Your task to perform on an android device: turn notification dots on Image 0: 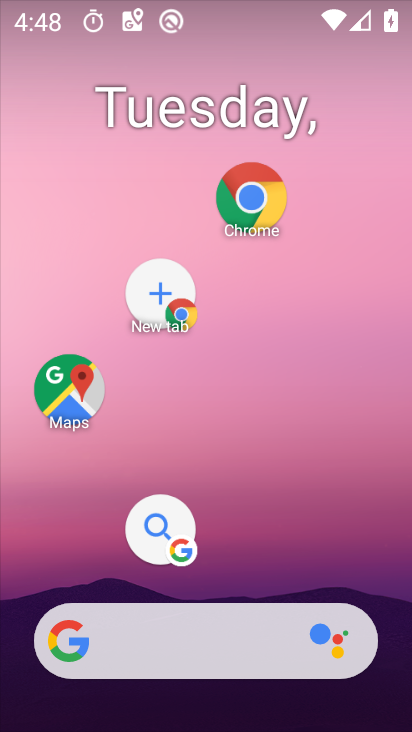
Step 0: drag from (193, 542) to (314, 290)
Your task to perform on an android device: turn notification dots on Image 1: 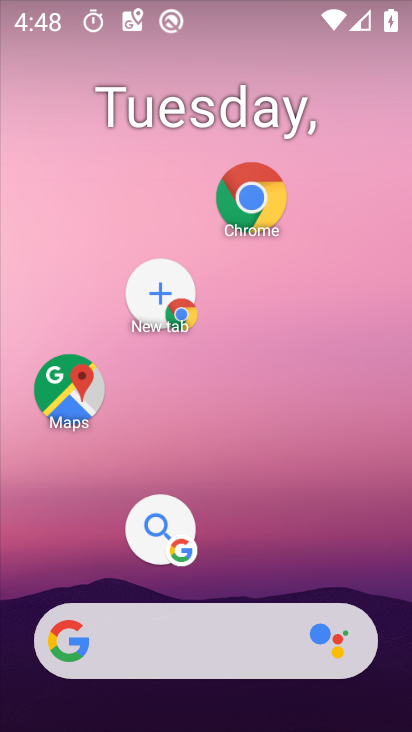
Step 1: drag from (182, 587) to (323, 143)
Your task to perform on an android device: turn notification dots on Image 2: 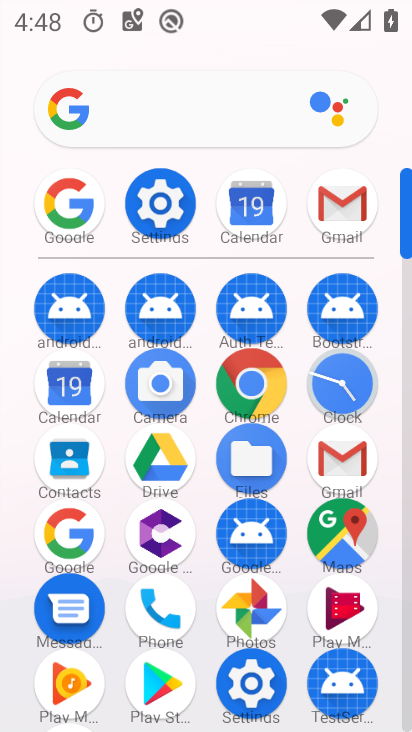
Step 2: click (166, 201)
Your task to perform on an android device: turn notification dots on Image 3: 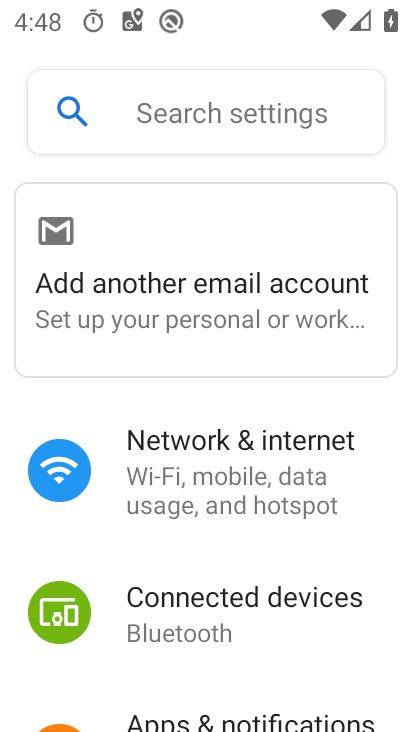
Step 3: click (219, 727)
Your task to perform on an android device: turn notification dots on Image 4: 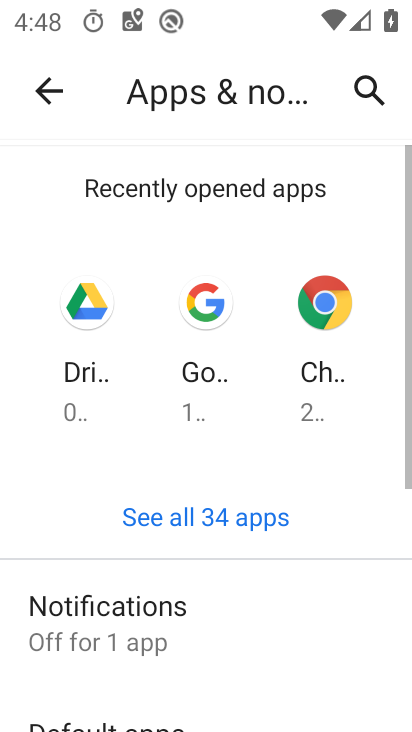
Step 4: click (119, 633)
Your task to perform on an android device: turn notification dots on Image 5: 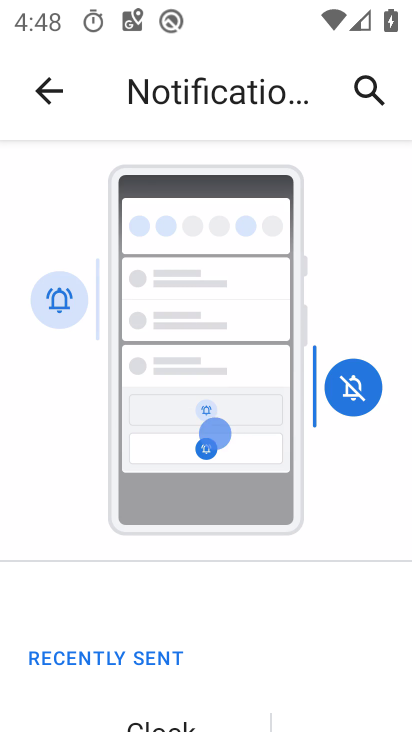
Step 5: drag from (305, 653) to (411, 373)
Your task to perform on an android device: turn notification dots on Image 6: 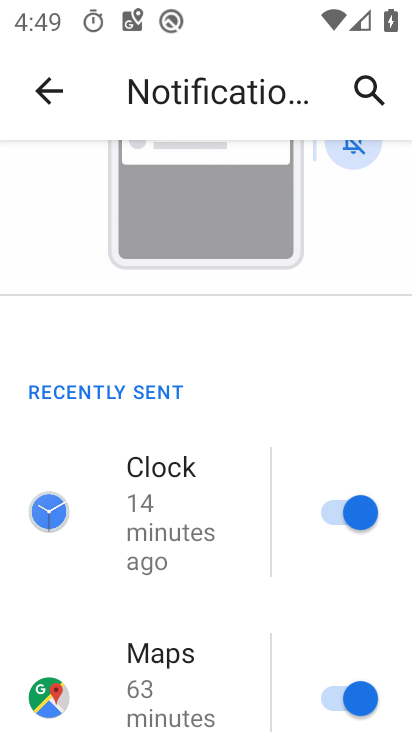
Step 6: drag from (224, 721) to (288, 569)
Your task to perform on an android device: turn notification dots on Image 7: 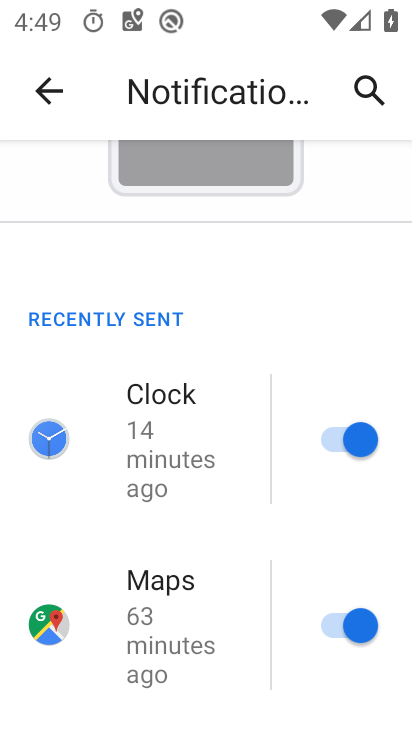
Step 7: drag from (187, 693) to (225, 467)
Your task to perform on an android device: turn notification dots on Image 8: 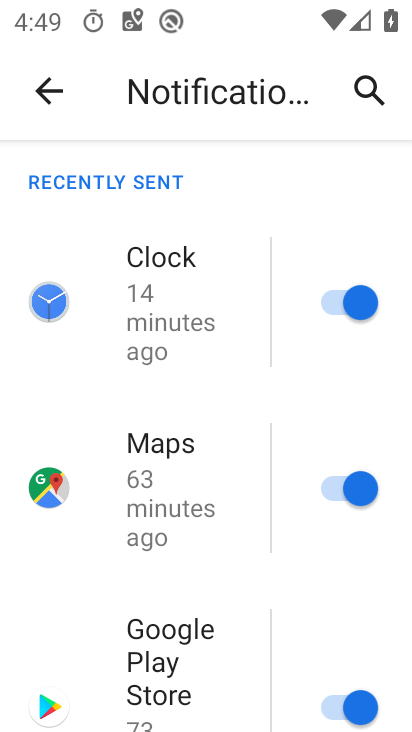
Step 8: drag from (212, 687) to (280, 336)
Your task to perform on an android device: turn notification dots on Image 9: 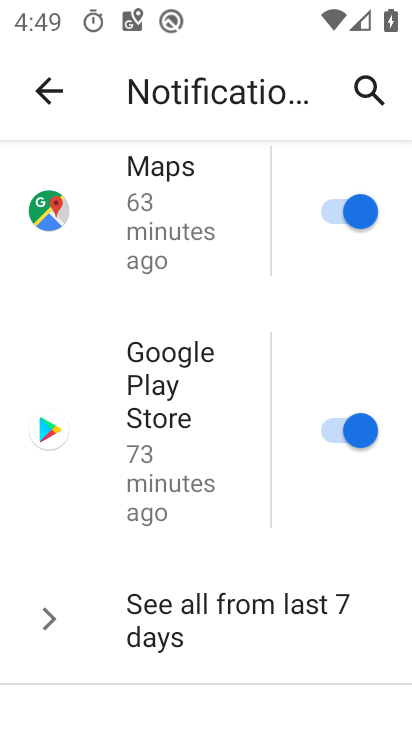
Step 9: drag from (202, 692) to (283, 433)
Your task to perform on an android device: turn notification dots on Image 10: 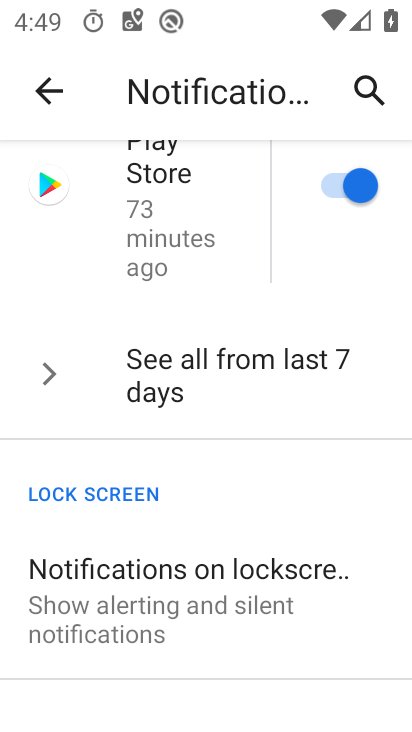
Step 10: drag from (135, 667) to (183, 538)
Your task to perform on an android device: turn notification dots on Image 11: 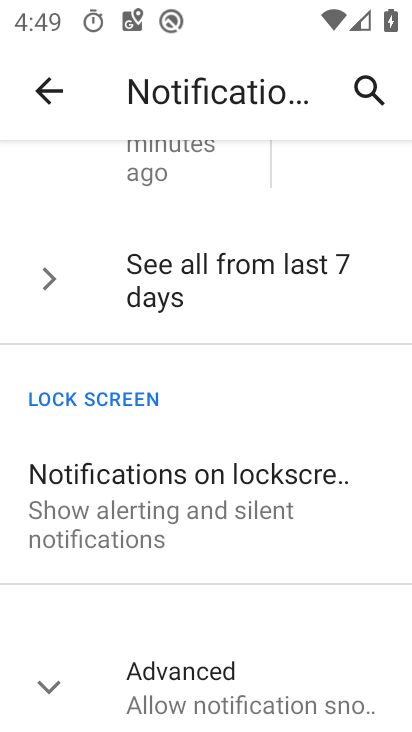
Step 11: click (170, 691)
Your task to perform on an android device: turn notification dots on Image 12: 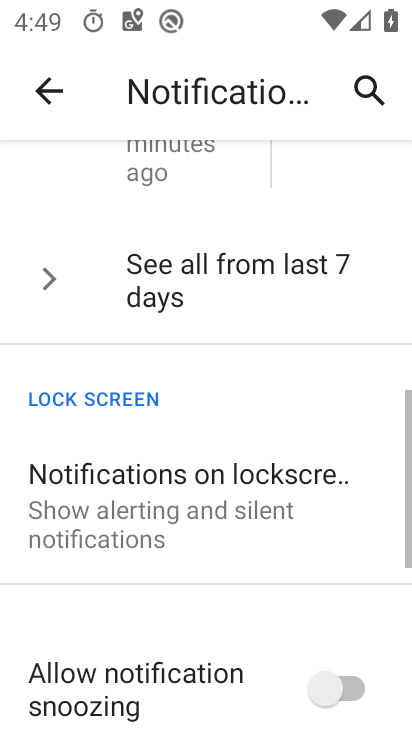
Step 12: task complete